Your task to perform on an android device: turn on notifications settings in the gmail app Image 0: 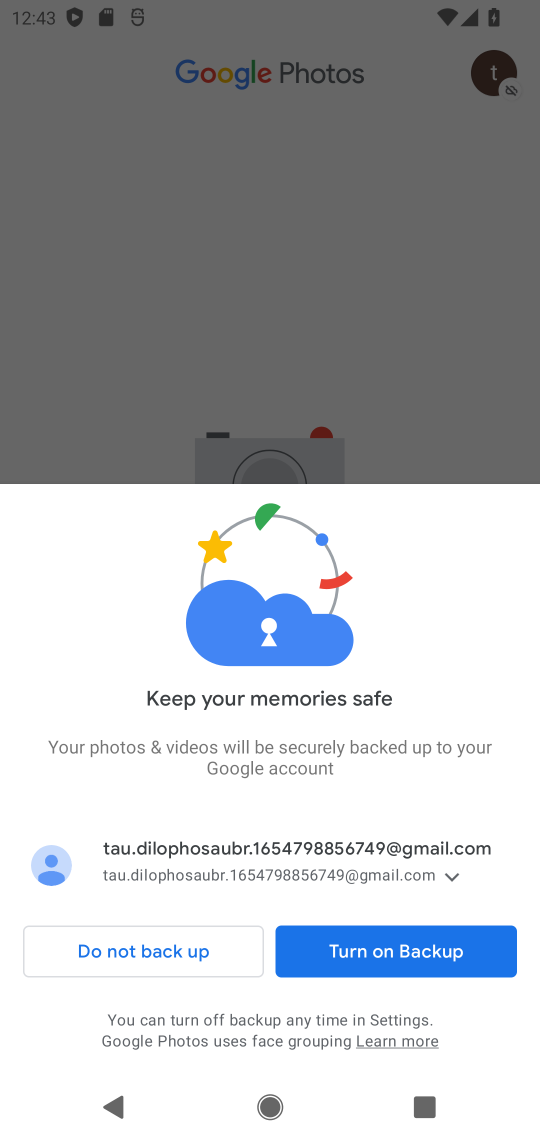
Step 0: press home button
Your task to perform on an android device: turn on notifications settings in the gmail app Image 1: 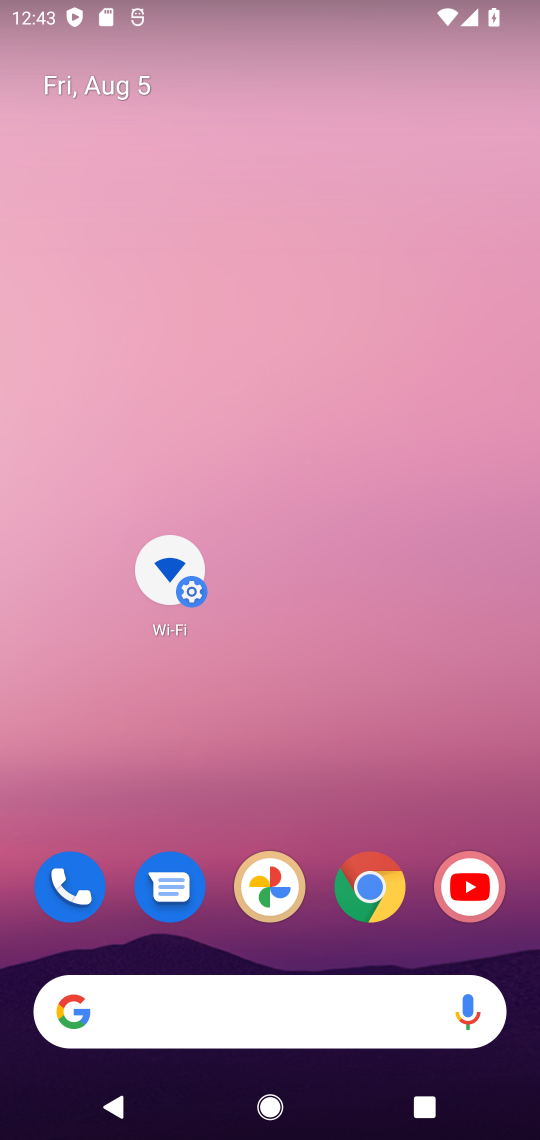
Step 1: drag from (241, 1029) to (219, 110)
Your task to perform on an android device: turn on notifications settings in the gmail app Image 2: 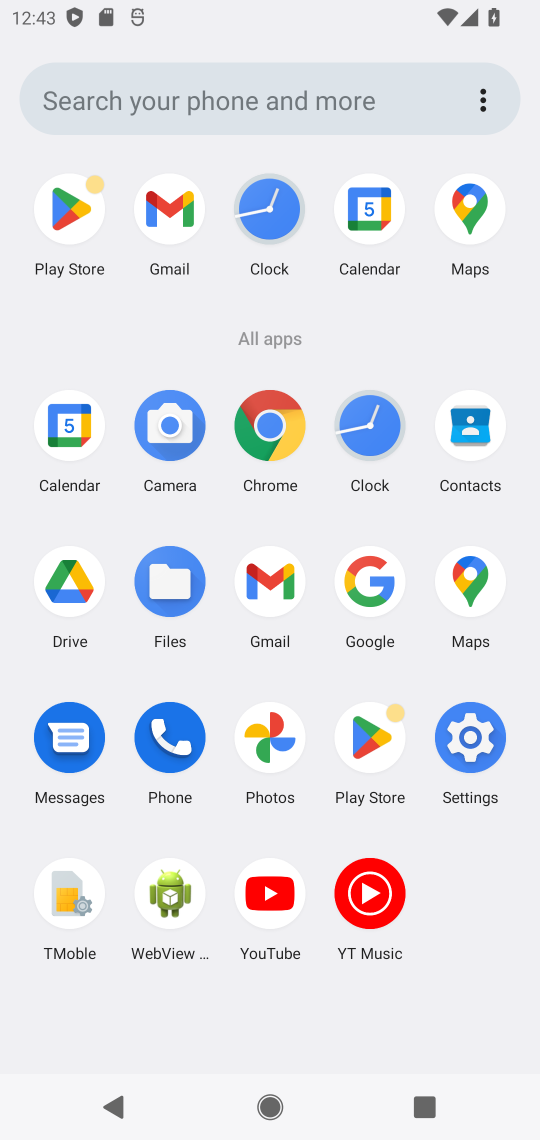
Step 2: click (270, 563)
Your task to perform on an android device: turn on notifications settings in the gmail app Image 3: 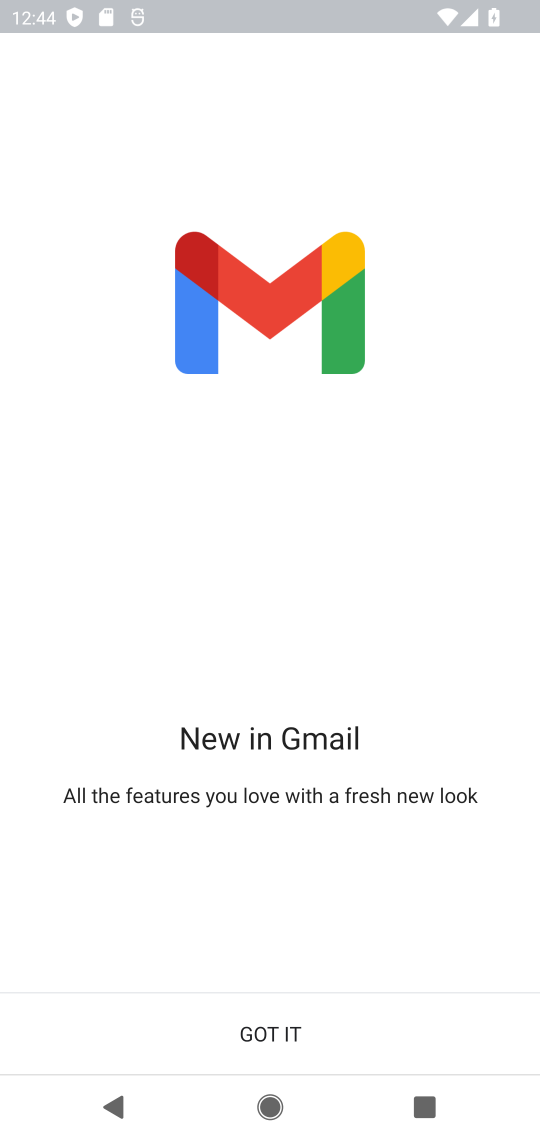
Step 3: click (312, 1034)
Your task to perform on an android device: turn on notifications settings in the gmail app Image 4: 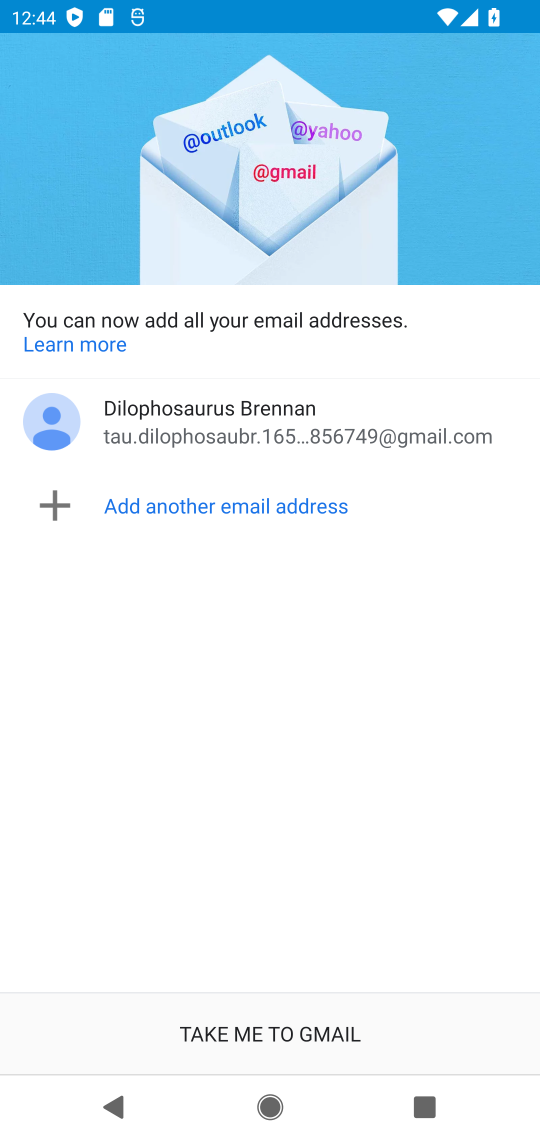
Step 4: click (312, 1034)
Your task to perform on an android device: turn on notifications settings in the gmail app Image 5: 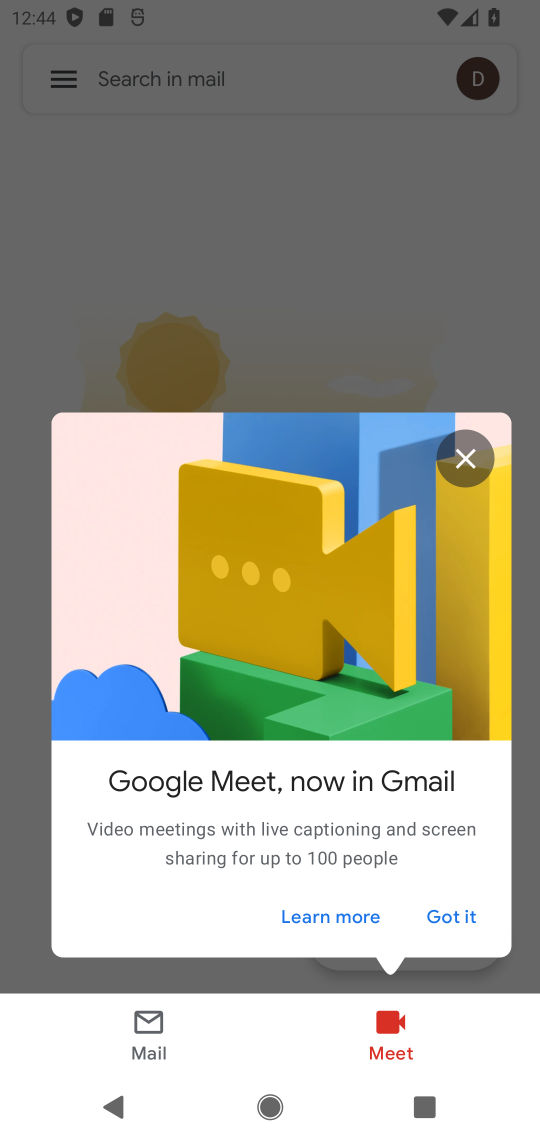
Step 5: click (457, 921)
Your task to perform on an android device: turn on notifications settings in the gmail app Image 6: 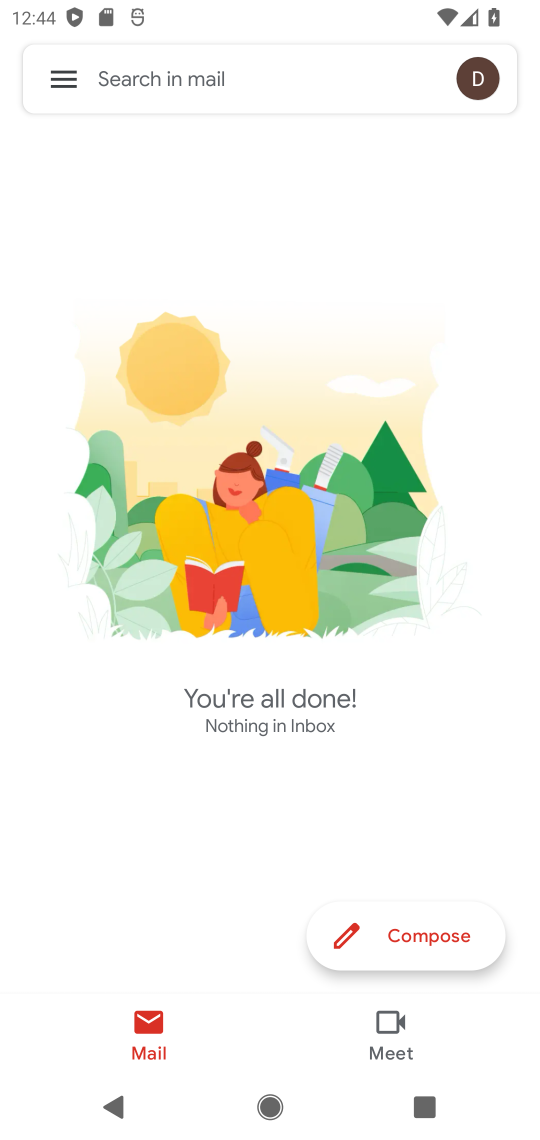
Step 6: click (55, 83)
Your task to perform on an android device: turn on notifications settings in the gmail app Image 7: 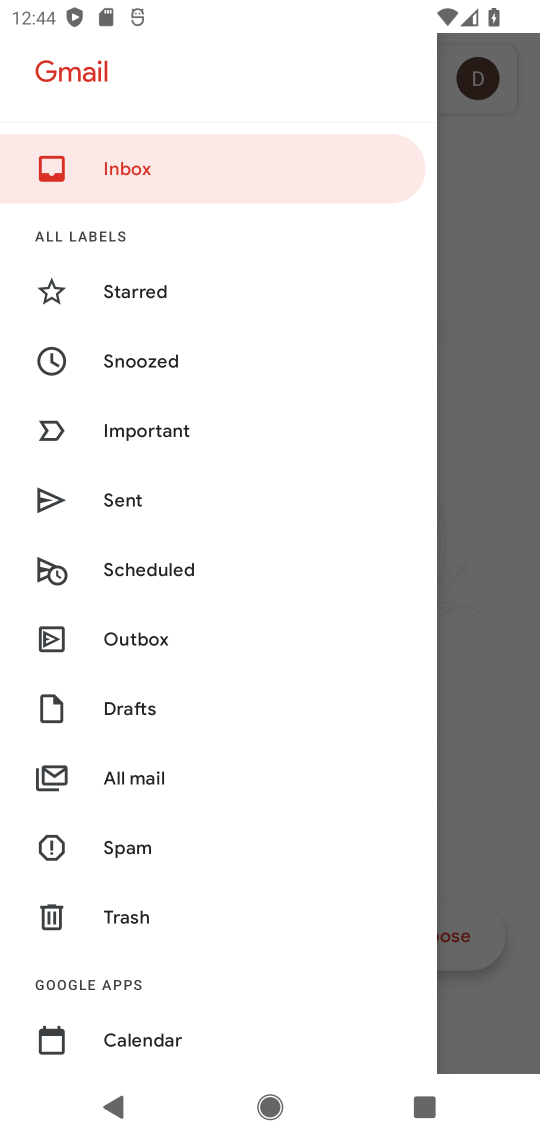
Step 7: drag from (169, 982) to (182, 354)
Your task to perform on an android device: turn on notifications settings in the gmail app Image 8: 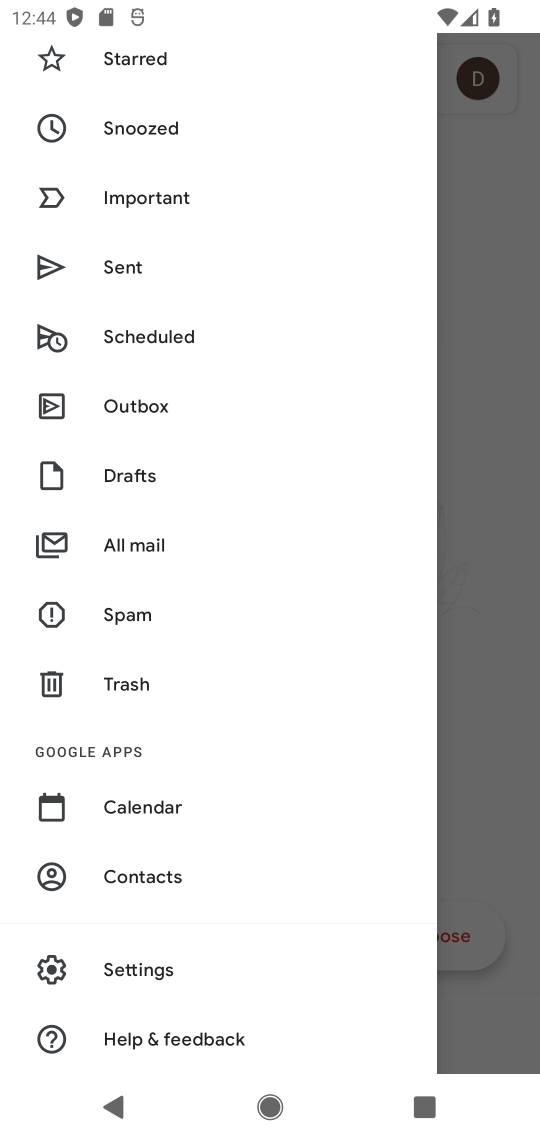
Step 8: click (162, 963)
Your task to perform on an android device: turn on notifications settings in the gmail app Image 9: 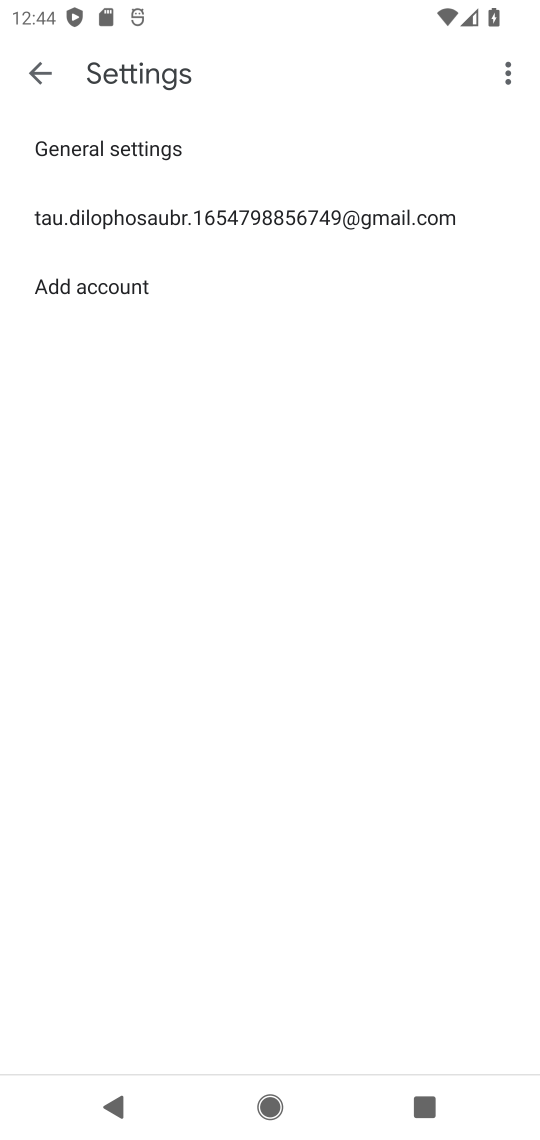
Step 9: click (245, 230)
Your task to perform on an android device: turn on notifications settings in the gmail app Image 10: 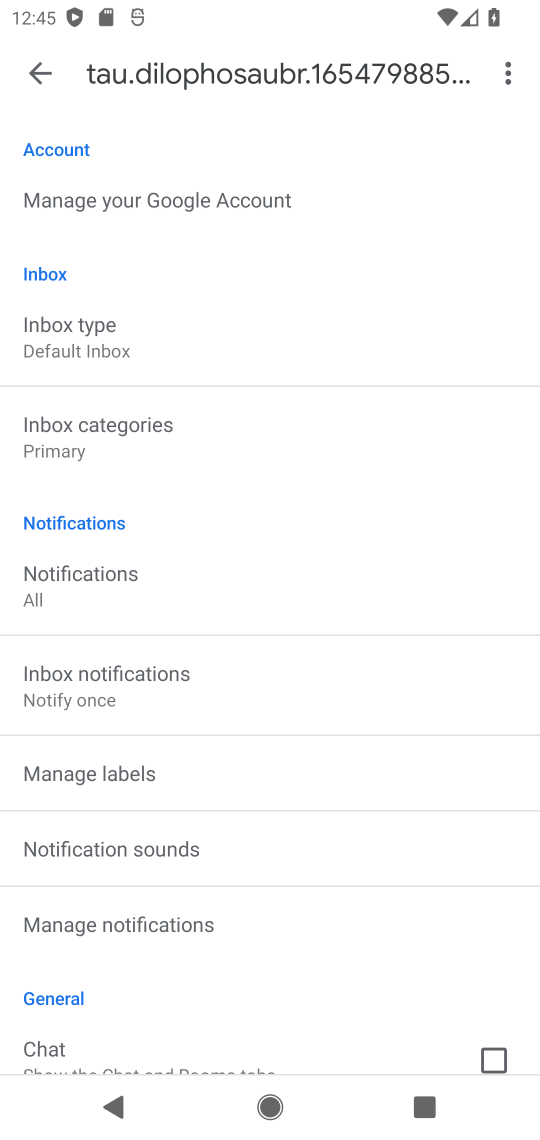
Step 10: click (330, 916)
Your task to perform on an android device: turn on notifications settings in the gmail app Image 11: 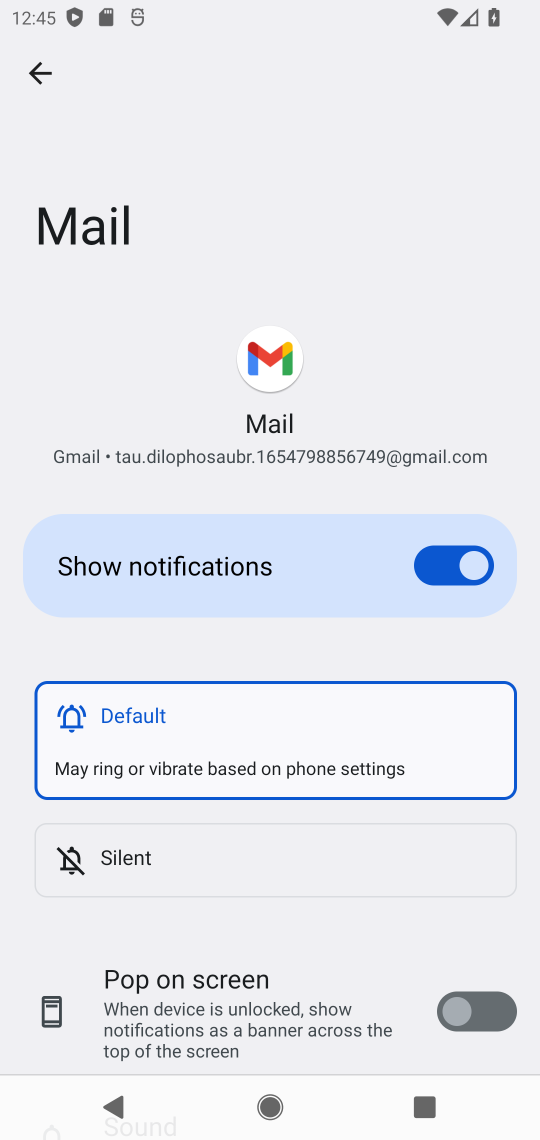
Step 11: task complete